Your task to perform on an android device: Open Reddit.com Image 0: 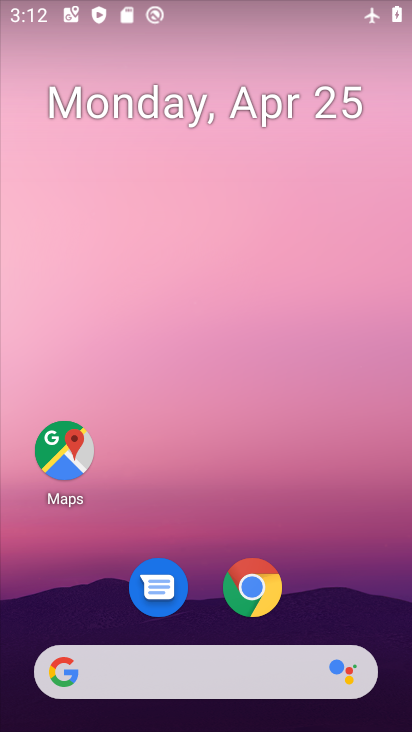
Step 0: drag from (214, 479) to (213, 116)
Your task to perform on an android device: Open Reddit.com Image 1: 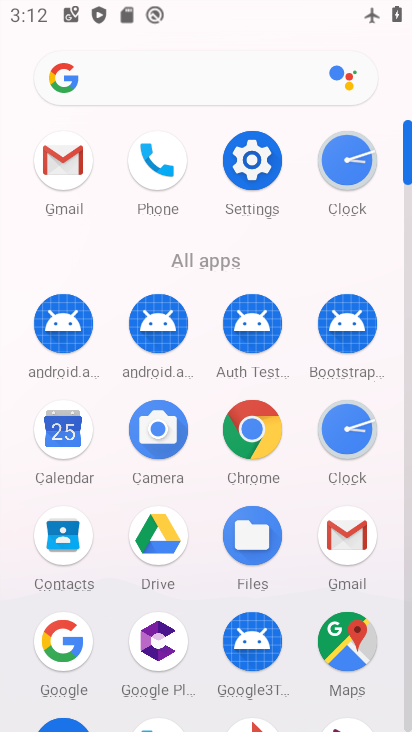
Step 1: click (60, 648)
Your task to perform on an android device: Open Reddit.com Image 2: 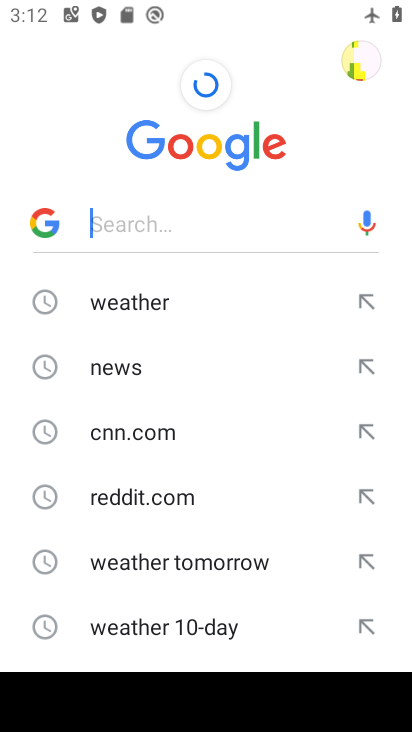
Step 2: click (125, 494)
Your task to perform on an android device: Open Reddit.com Image 3: 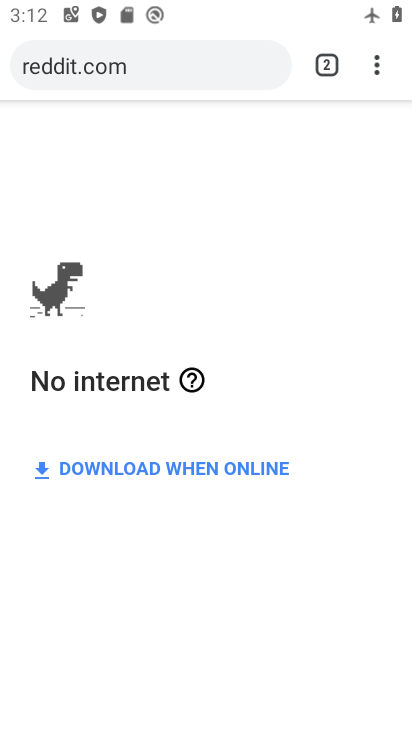
Step 3: task complete